Your task to perform on an android device: turn off picture-in-picture Image 0: 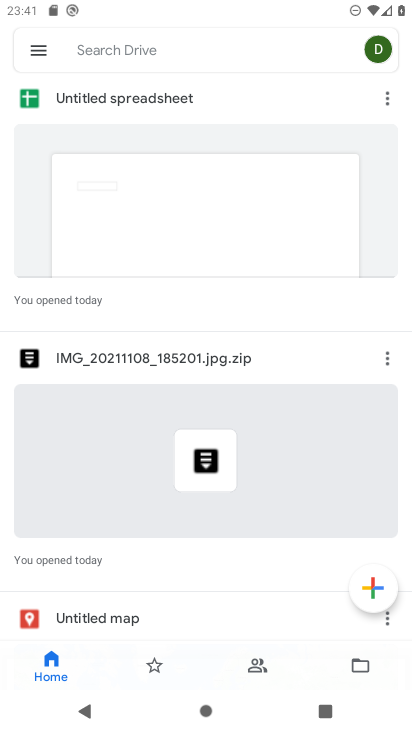
Step 0: press home button
Your task to perform on an android device: turn off picture-in-picture Image 1: 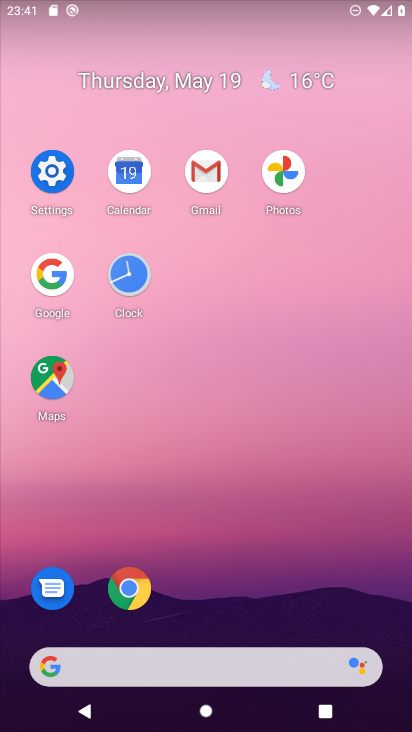
Step 1: click (131, 587)
Your task to perform on an android device: turn off picture-in-picture Image 2: 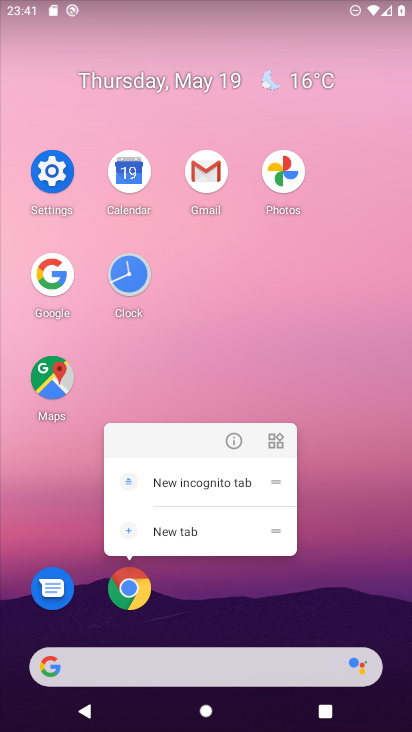
Step 2: click (238, 438)
Your task to perform on an android device: turn off picture-in-picture Image 3: 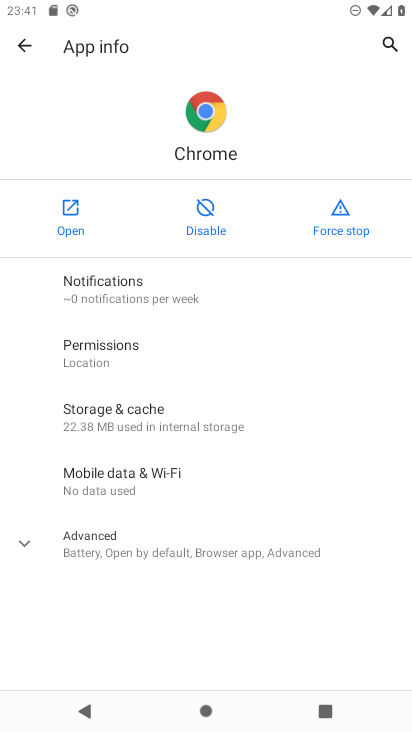
Step 3: click (165, 548)
Your task to perform on an android device: turn off picture-in-picture Image 4: 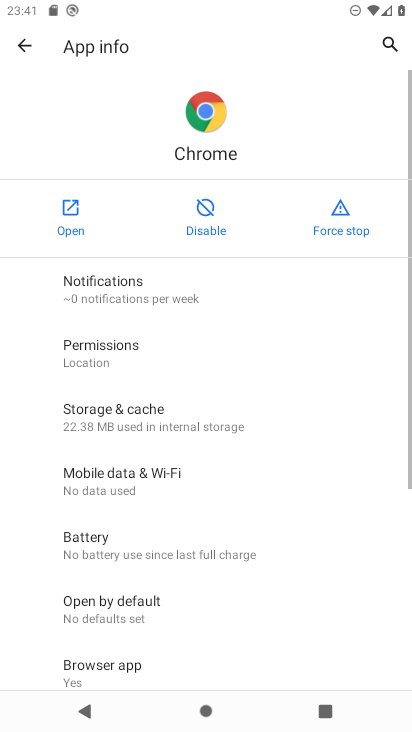
Step 4: drag from (171, 600) to (213, 224)
Your task to perform on an android device: turn off picture-in-picture Image 5: 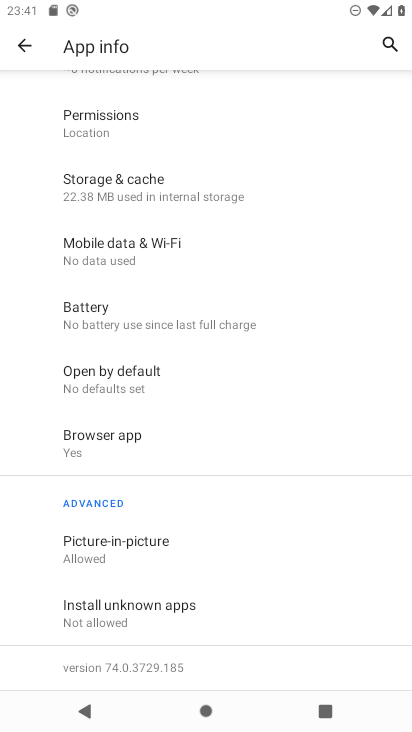
Step 5: click (169, 534)
Your task to perform on an android device: turn off picture-in-picture Image 6: 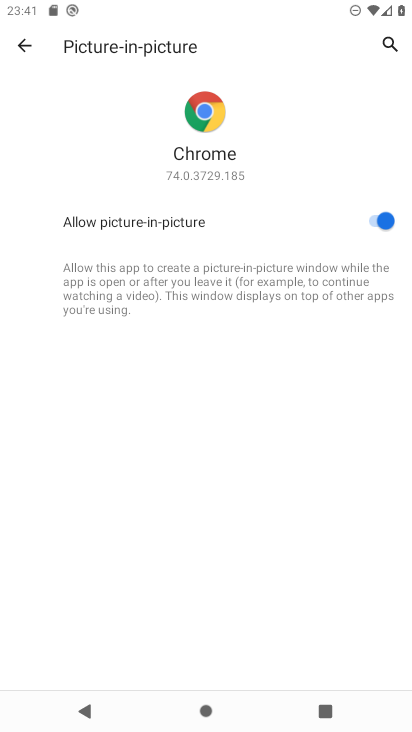
Step 6: click (378, 214)
Your task to perform on an android device: turn off picture-in-picture Image 7: 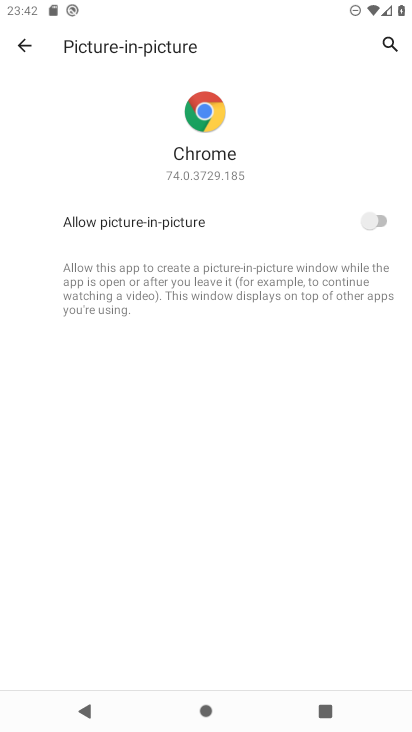
Step 7: task complete